Your task to perform on an android device: Go to eBay Image 0: 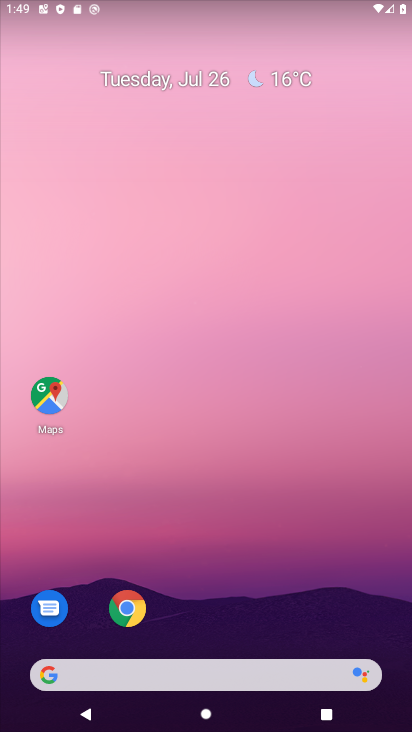
Step 0: click (122, 619)
Your task to perform on an android device: Go to eBay Image 1: 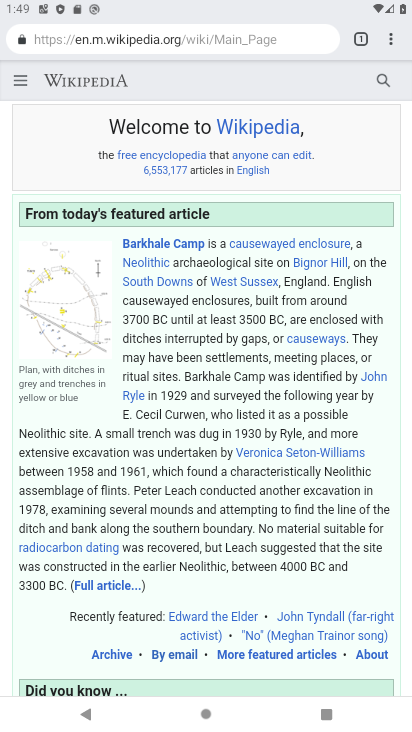
Step 1: click (207, 41)
Your task to perform on an android device: Go to eBay Image 2: 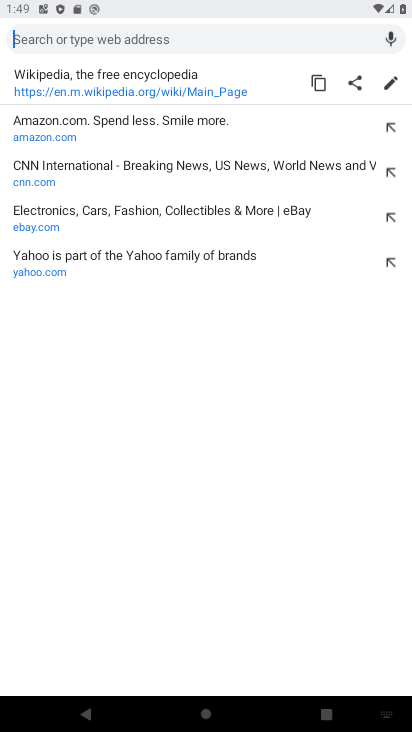
Step 2: click (150, 225)
Your task to perform on an android device: Go to eBay Image 3: 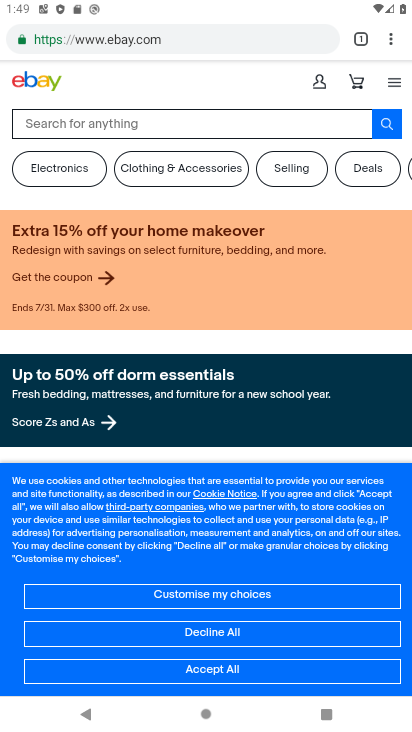
Step 3: task complete